Your task to perform on an android device: turn off javascript in the chrome app Image 0: 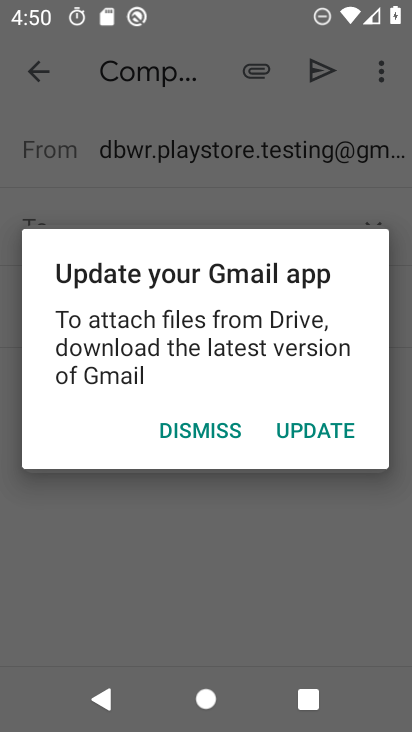
Step 0: press back button
Your task to perform on an android device: turn off javascript in the chrome app Image 1: 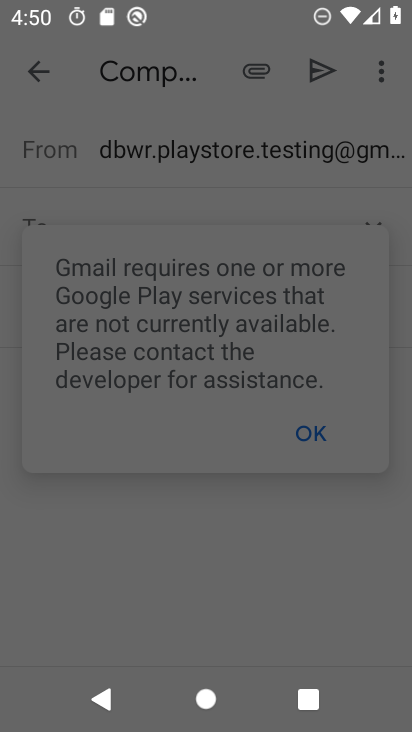
Step 1: press back button
Your task to perform on an android device: turn off javascript in the chrome app Image 2: 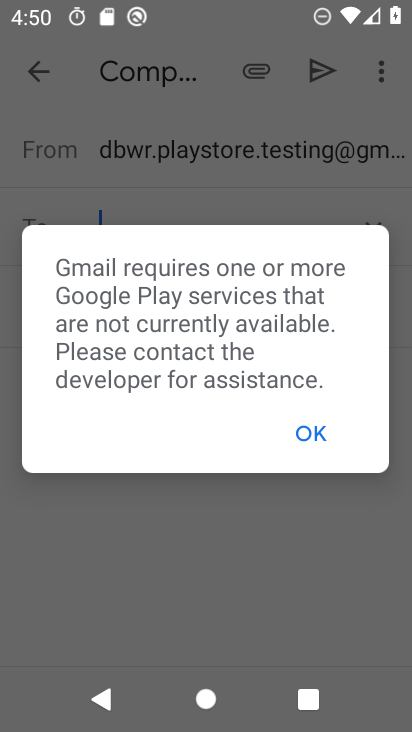
Step 2: click (318, 425)
Your task to perform on an android device: turn off javascript in the chrome app Image 3: 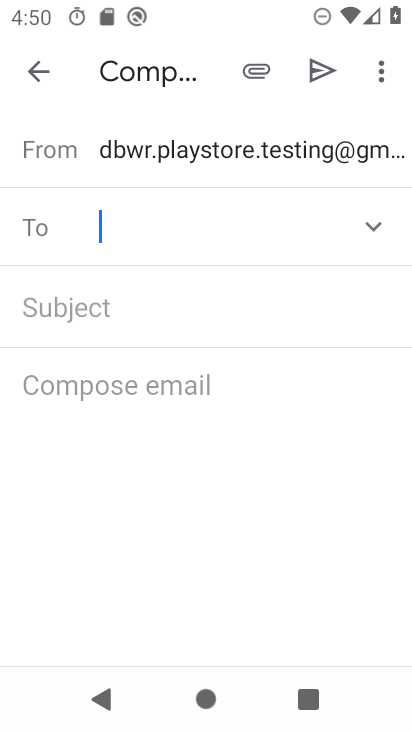
Step 3: press home button
Your task to perform on an android device: turn off javascript in the chrome app Image 4: 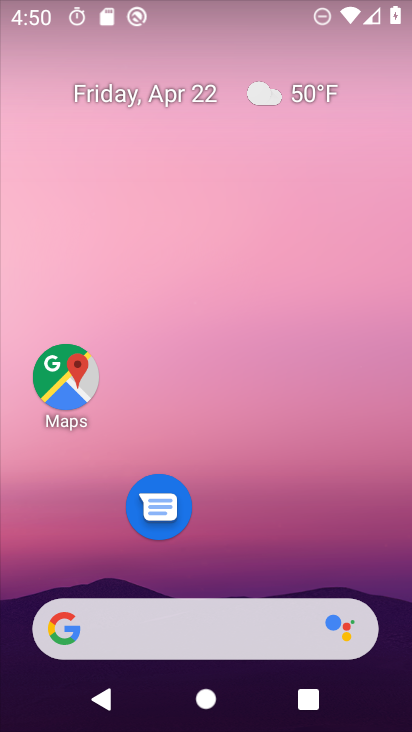
Step 4: drag from (190, 554) to (279, 25)
Your task to perform on an android device: turn off javascript in the chrome app Image 5: 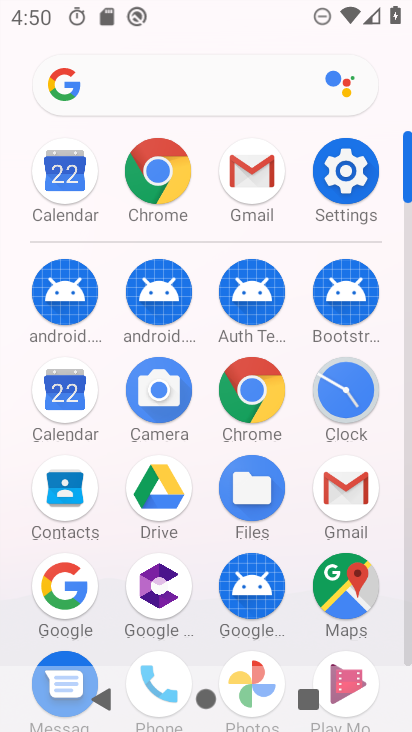
Step 5: click (146, 192)
Your task to perform on an android device: turn off javascript in the chrome app Image 6: 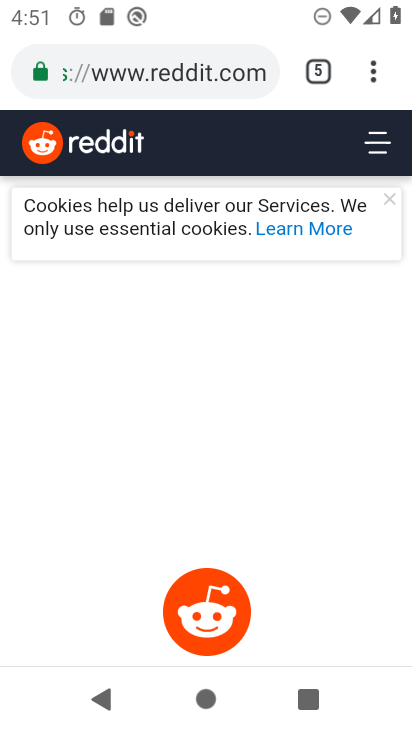
Step 6: drag from (377, 65) to (102, 498)
Your task to perform on an android device: turn off javascript in the chrome app Image 7: 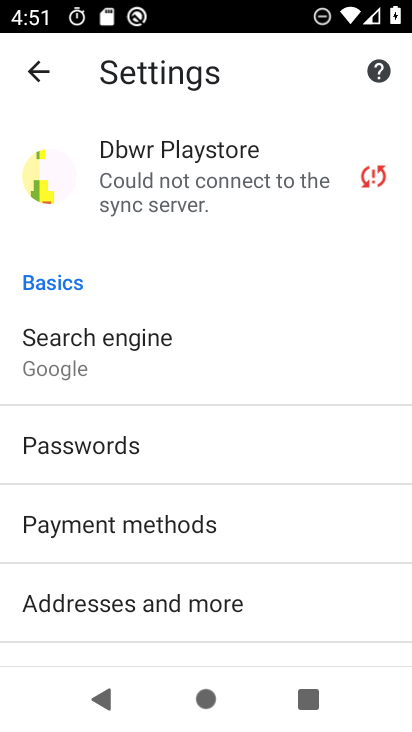
Step 7: drag from (142, 573) to (152, 100)
Your task to perform on an android device: turn off javascript in the chrome app Image 8: 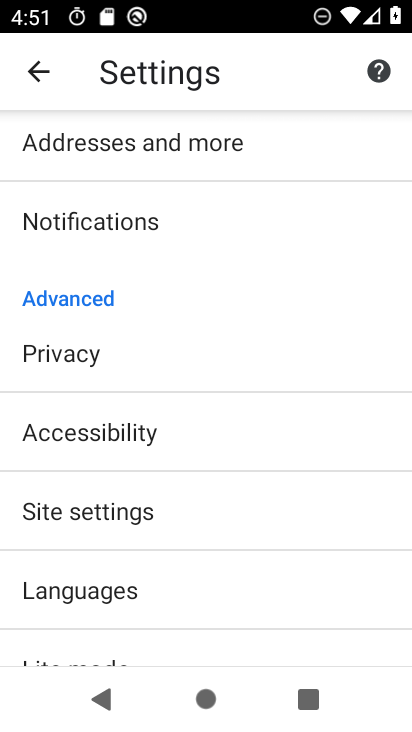
Step 8: drag from (154, 538) to (212, 226)
Your task to perform on an android device: turn off javascript in the chrome app Image 9: 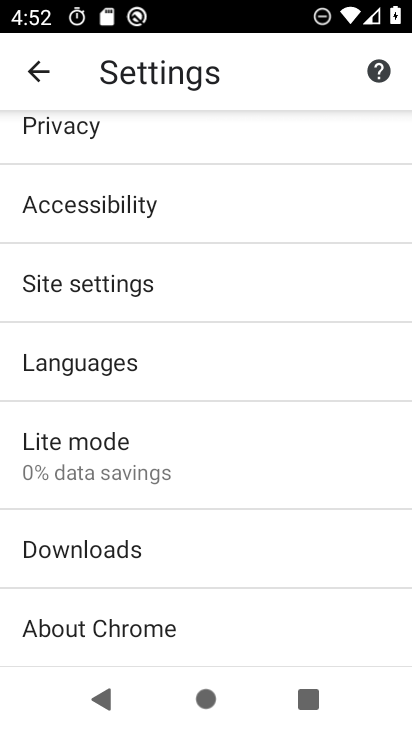
Step 9: click (120, 293)
Your task to perform on an android device: turn off javascript in the chrome app Image 10: 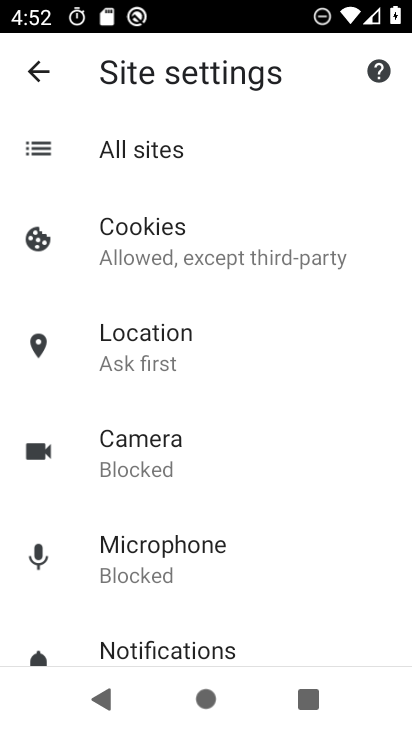
Step 10: drag from (183, 620) to (231, 138)
Your task to perform on an android device: turn off javascript in the chrome app Image 11: 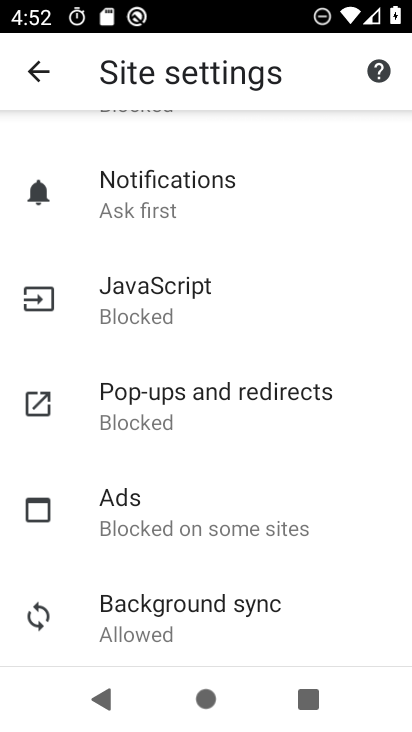
Step 11: click (153, 296)
Your task to perform on an android device: turn off javascript in the chrome app Image 12: 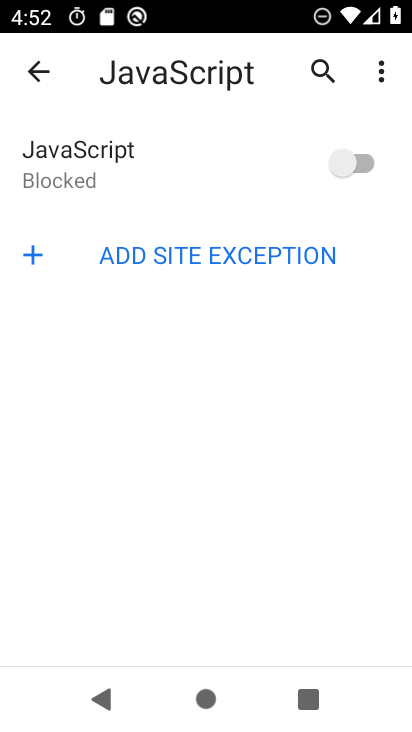
Step 12: task complete